Your task to perform on an android device: Open maps Image 0: 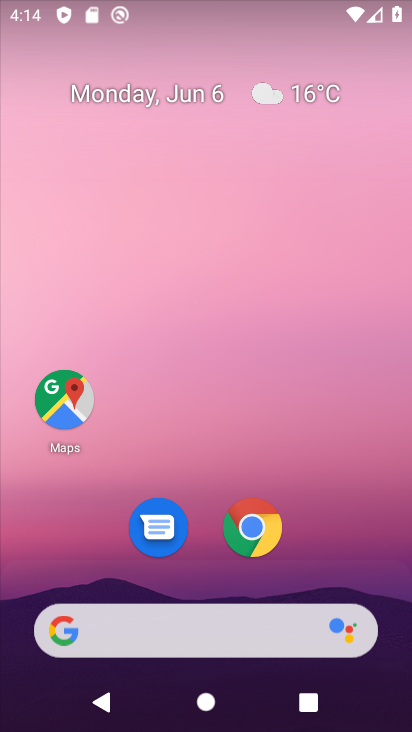
Step 0: click (69, 417)
Your task to perform on an android device: Open maps Image 1: 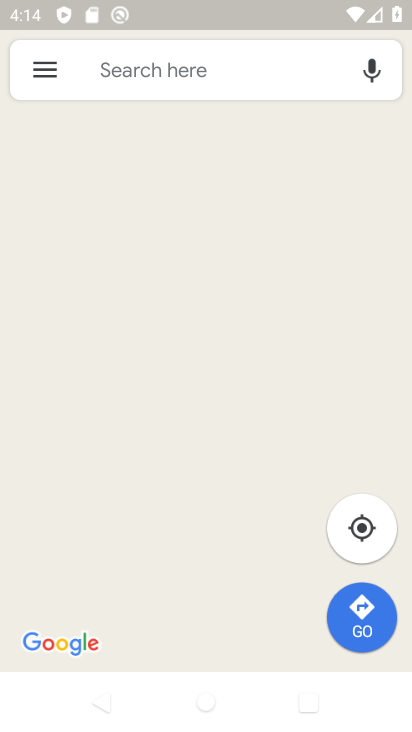
Step 1: task complete